Your task to perform on an android device: Search for pizza restaurants on Maps Image 0: 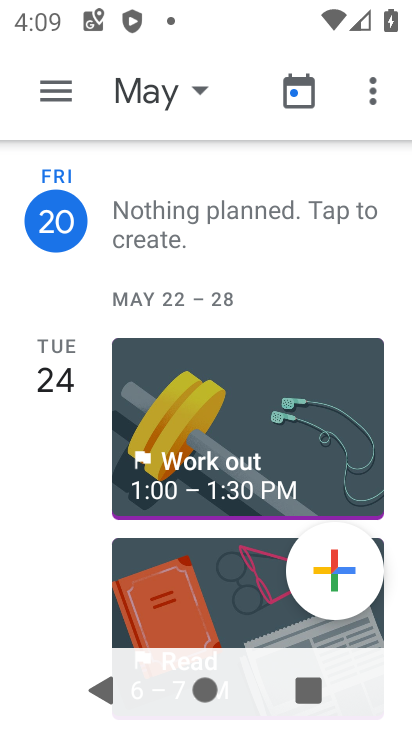
Step 0: press home button
Your task to perform on an android device: Search for pizza restaurants on Maps Image 1: 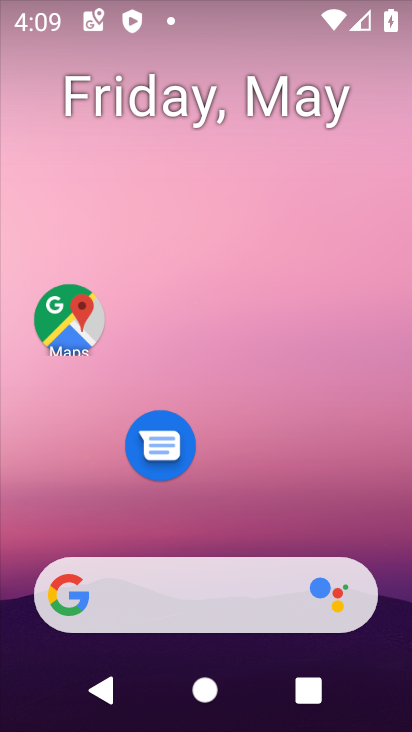
Step 1: click (92, 335)
Your task to perform on an android device: Search for pizza restaurants on Maps Image 2: 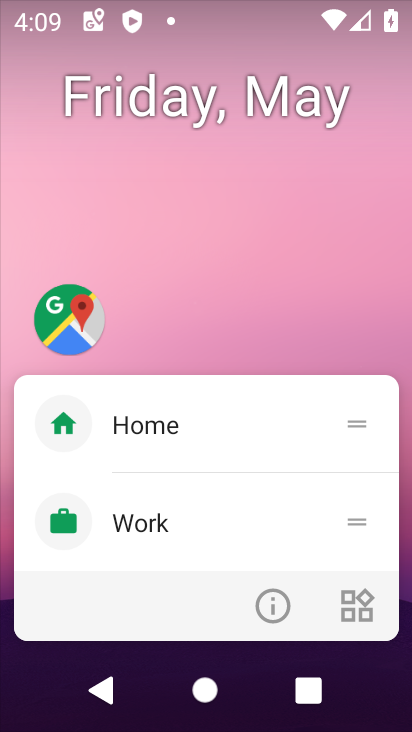
Step 2: click (73, 276)
Your task to perform on an android device: Search for pizza restaurants on Maps Image 3: 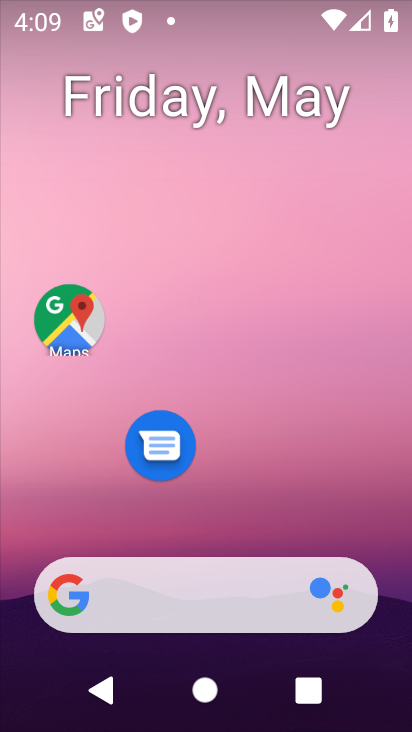
Step 3: click (68, 317)
Your task to perform on an android device: Search for pizza restaurants on Maps Image 4: 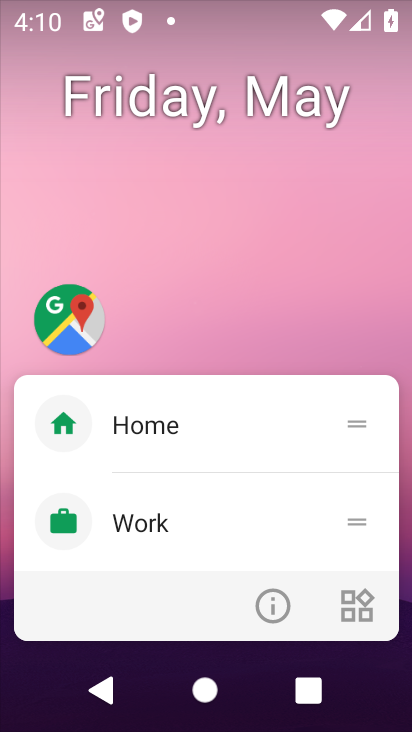
Step 4: click (59, 310)
Your task to perform on an android device: Search for pizza restaurants on Maps Image 5: 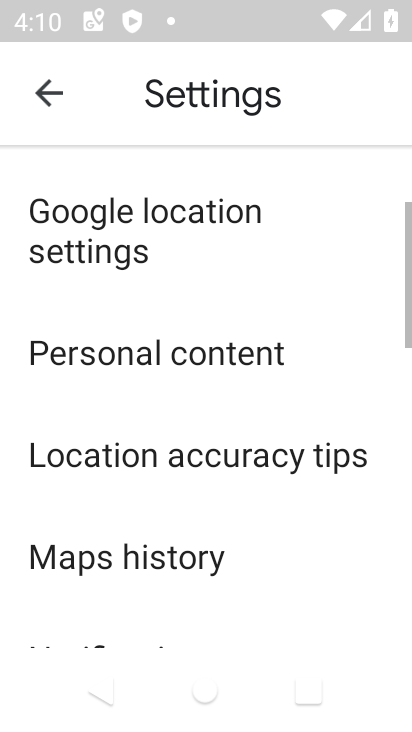
Step 5: click (52, 100)
Your task to perform on an android device: Search for pizza restaurants on Maps Image 6: 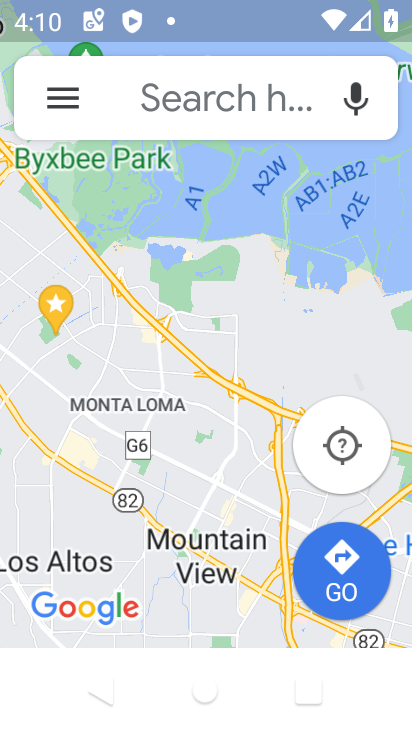
Step 6: click (153, 81)
Your task to perform on an android device: Search for pizza restaurants on Maps Image 7: 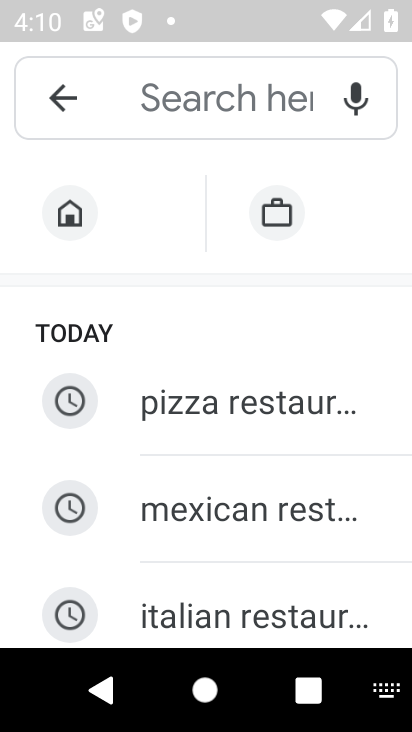
Step 7: type "pizza restaurants"
Your task to perform on an android device: Search for pizza restaurants on Maps Image 8: 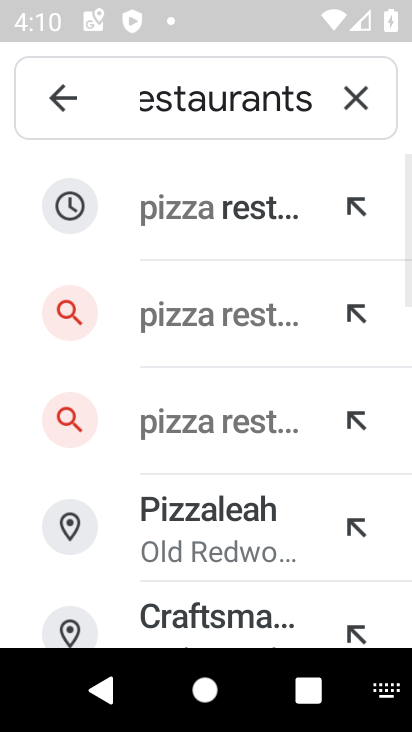
Step 8: click (233, 222)
Your task to perform on an android device: Search for pizza restaurants on Maps Image 9: 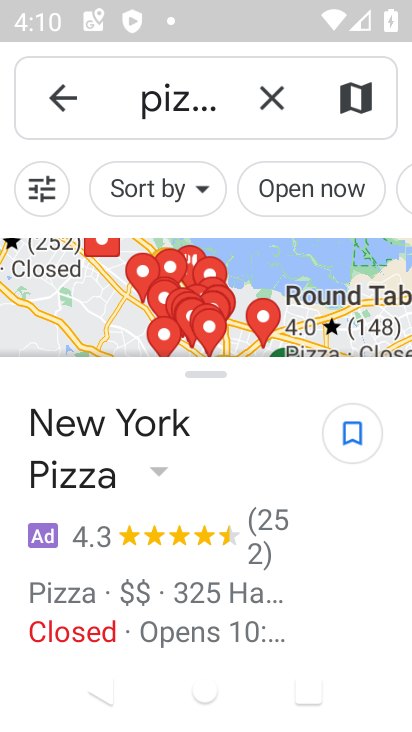
Step 9: task complete